Your task to perform on an android device: Show me the alarms in the clock app Image 0: 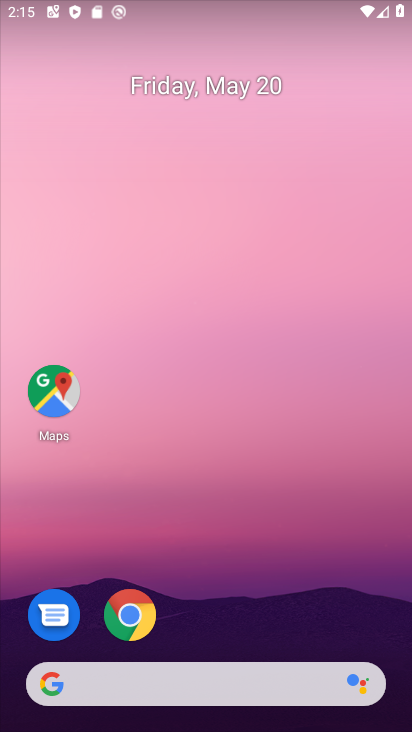
Step 0: drag from (265, 574) to (260, 295)
Your task to perform on an android device: Show me the alarms in the clock app Image 1: 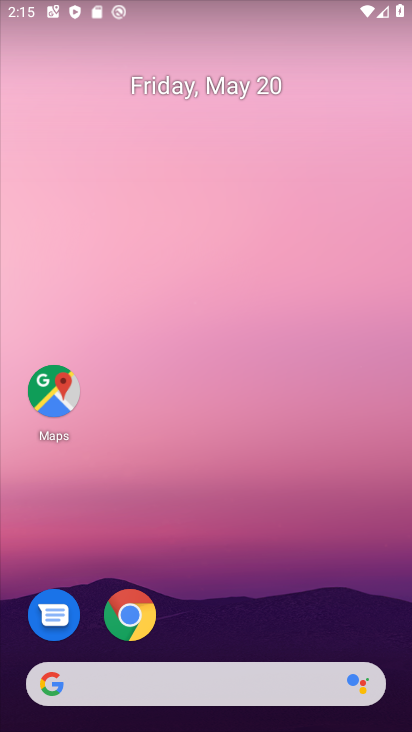
Step 1: drag from (283, 558) to (300, 288)
Your task to perform on an android device: Show me the alarms in the clock app Image 2: 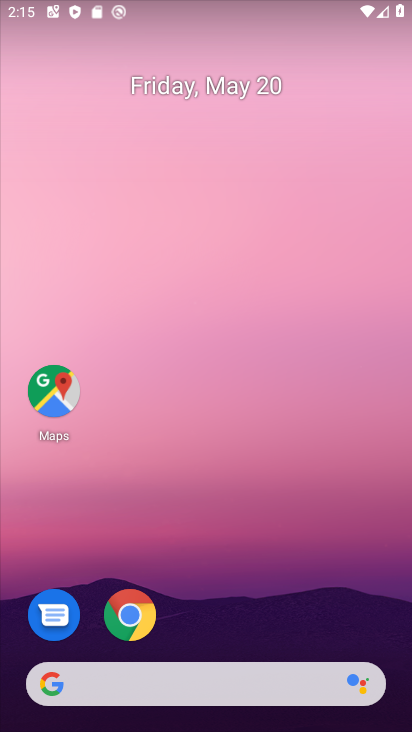
Step 2: drag from (246, 633) to (269, 275)
Your task to perform on an android device: Show me the alarms in the clock app Image 3: 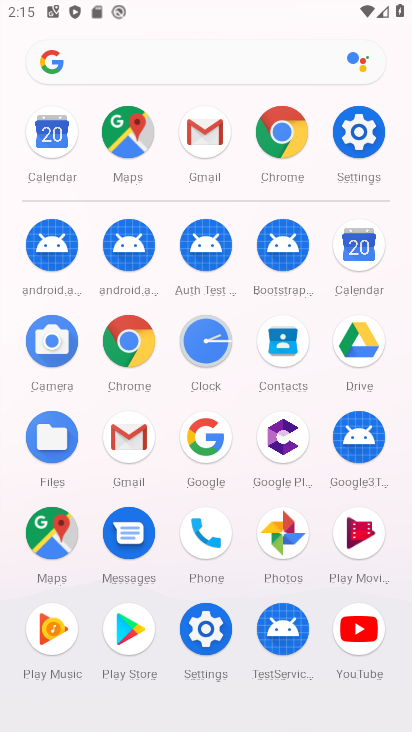
Step 3: click (208, 335)
Your task to perform on an android device: Show me the alarms in the clock app Image 4: 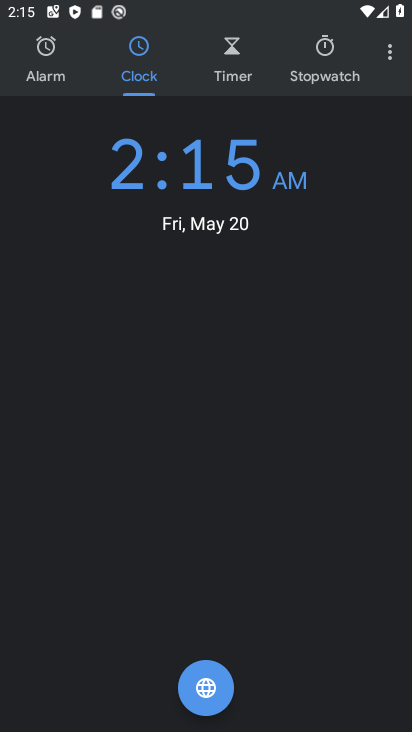
Step 4: click (72, 46)
Your task to perform on an android device: Show me the alarms in the clock app Image 5: 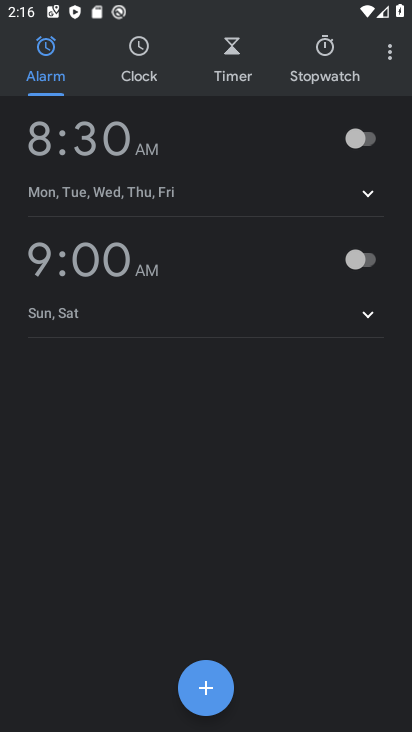
Step 5: task complete